Your task to perform on an android device: What's on my calendar tomorrow? Image 0: 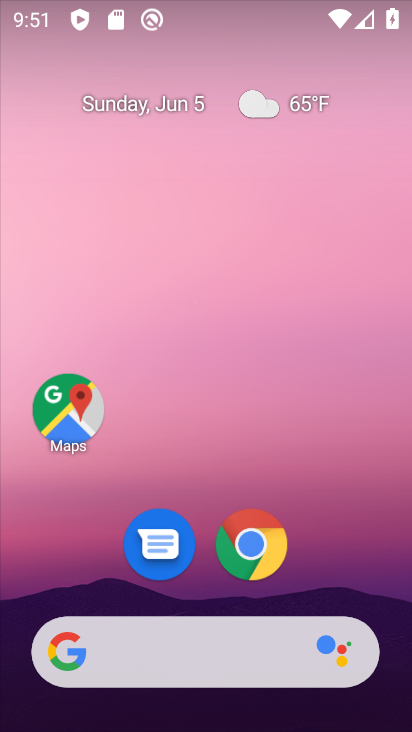
Step 0: drag from (380, 575) to (345, 0)
Your task to perform on an android device: What's on my calendar tomorrow? Image 1: 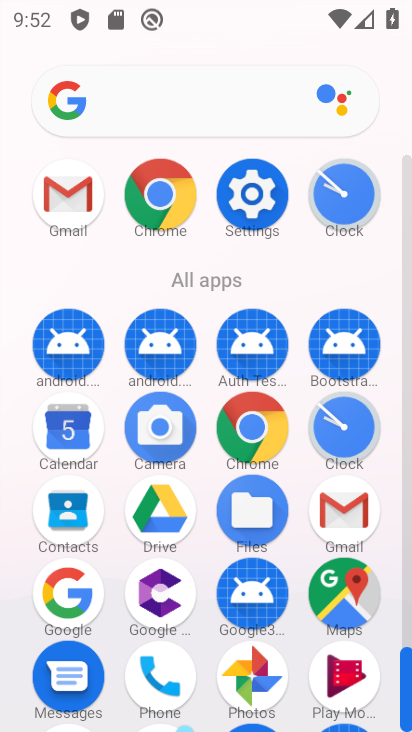
Step 1: click (84, 427)
Your task to perform on an android device: What's on my calendar tomorrow? Image 2: 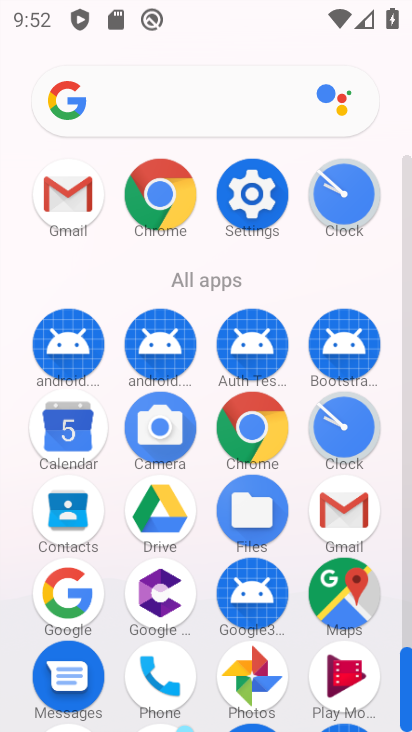
Step 2: task complete